Your task to perform on an android device: Go to wifi settings Image 0: 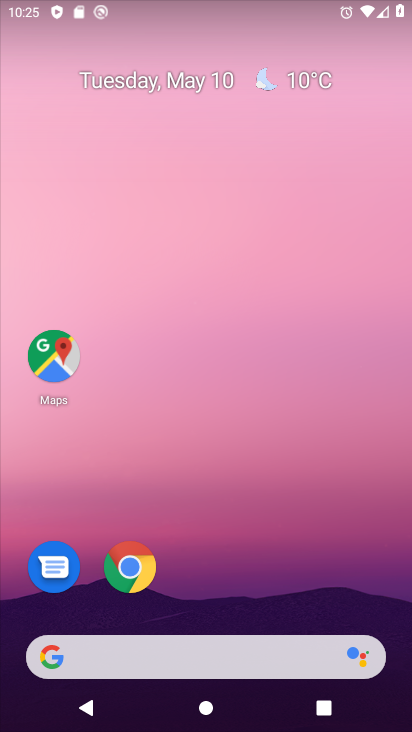
Step 0: drag from (270, 614) to (277, 0)
Your task to perform on an android device: Go to wifi settings Image 1: 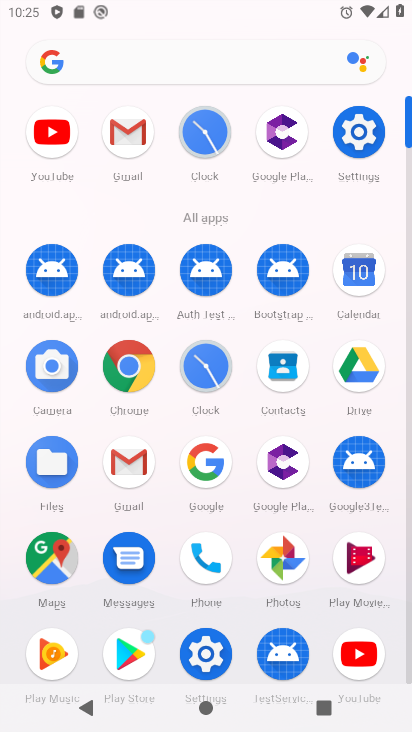
Step 1: click (369, 142)
Your task to perform on an android device: Go to wifi settings Image 2: 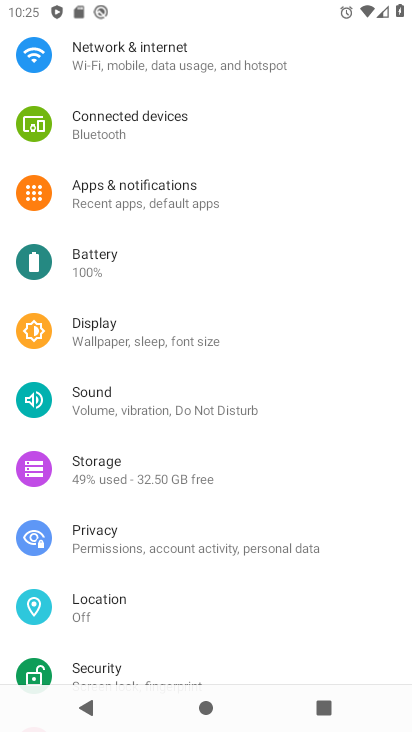
Step 2: drag from (359, 147) to (330, 414)
Your task to perform on an android device: Go to wifi settings Image 3: 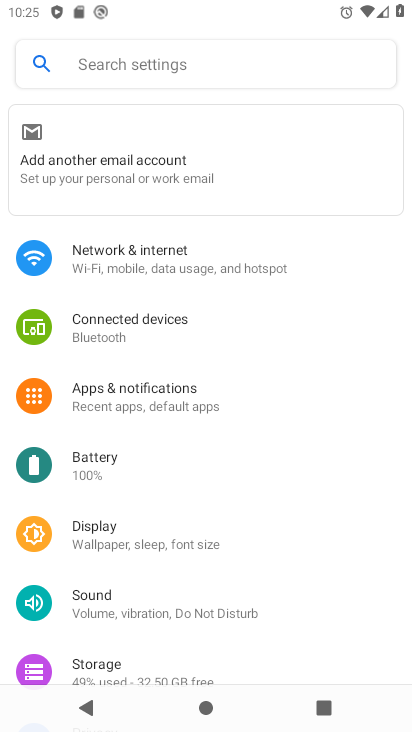
Step 3: click (137, 263)
Your task to perform on an android device: Go to wifi settings Image 4: 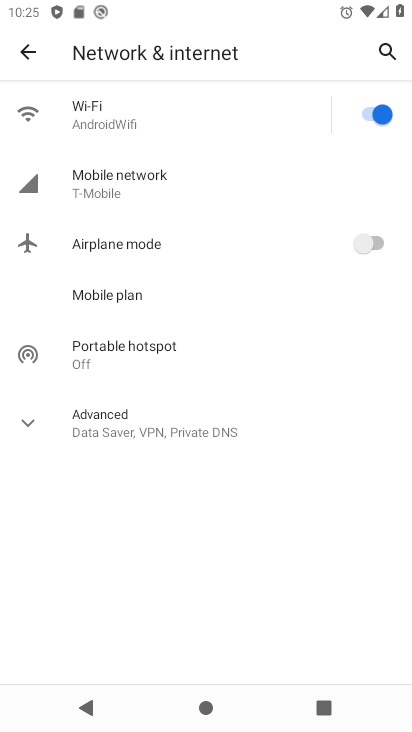
Step 4: click (76, 129)
Your task to perform on an android device: Go to wifi settings Image 5: 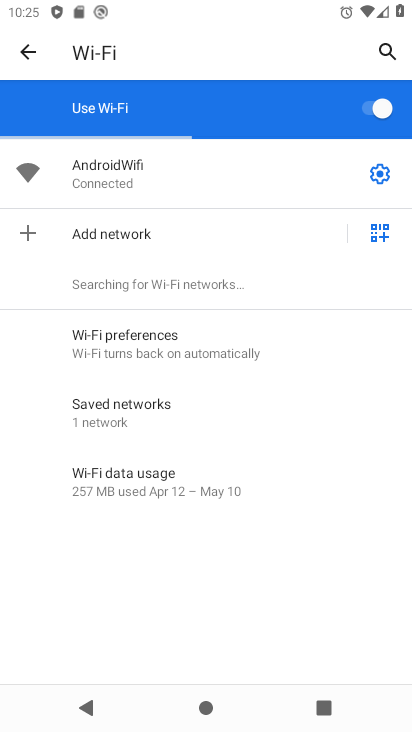
Step 5: task complete